Your task to perform on an android device: Search for sushi restaurants on Maps Image 0: 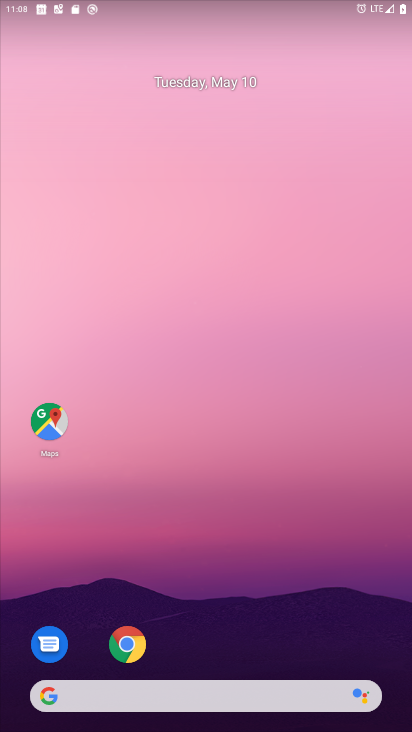
Step 0: drag from (270, 545) to (330, 191)
Your task to perform on an android device: Search for sushi restaurants on Maps Image 1: 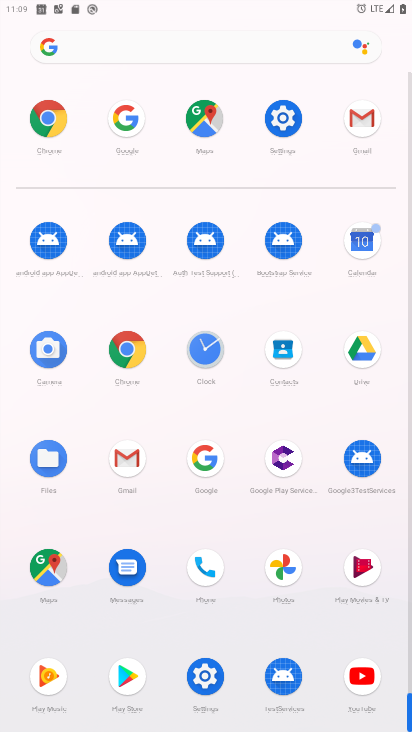
Step 1: click (43, 577)
Your task to perform on an android device: Search for sushi restaurants on Maps Image 2: 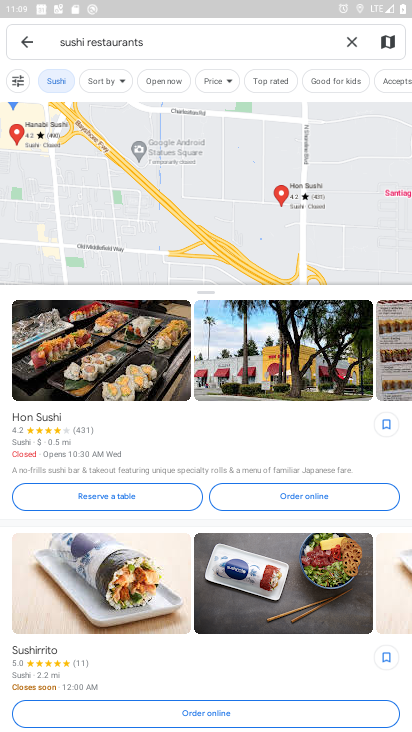
Step 2: task complete